Your task to perform on an android device: set the stopwatch Image 0: 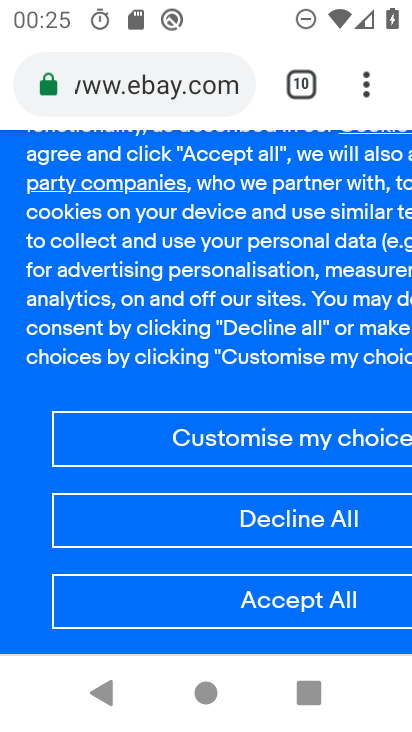
Step 0: press home button
Your task to perform on an android device: set the stopwatch Image 1: 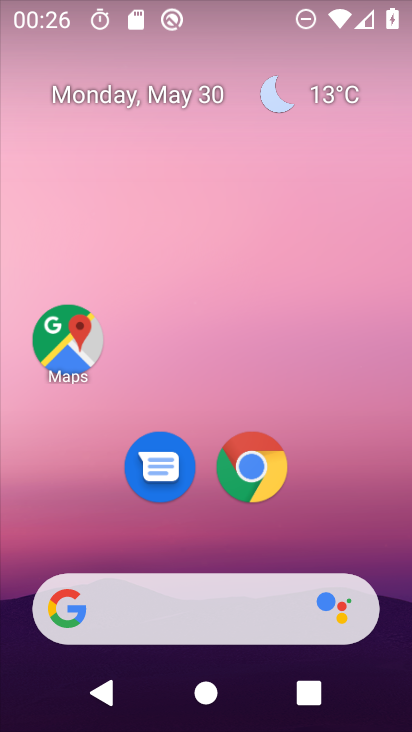
Step 1: drag from (188, 538) to (217, 187)
Your task to perform on an android device: set the stopwatch Image 2: 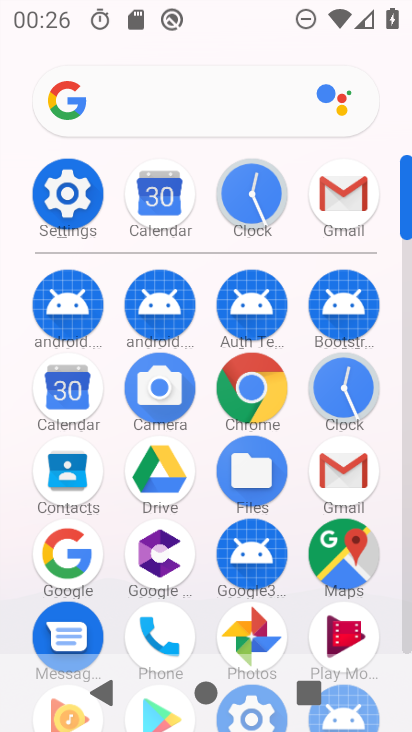
Step 2: click (241, 201)
Your task to perform on an android device: set the stopwatch Image 3: 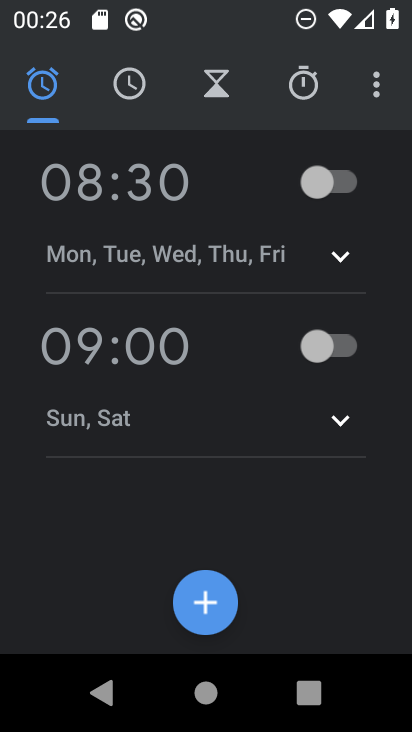
Step 3: click (296, 103)
Your task to perform on an android device: set the stopwatch Image 4: 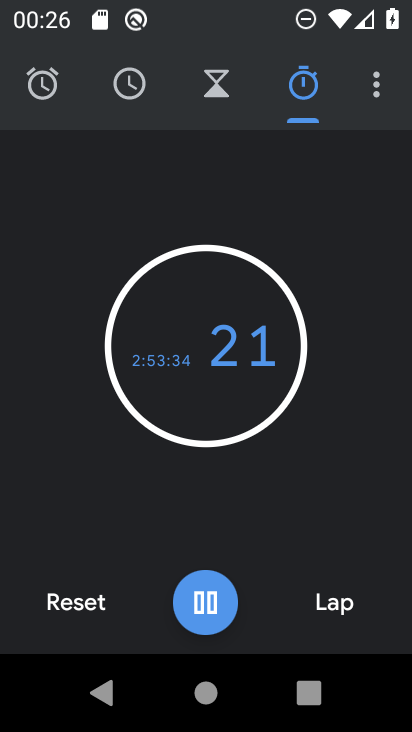
Step 4: task complete